Your task to perform on an android device: Open privacy settings Image 0: 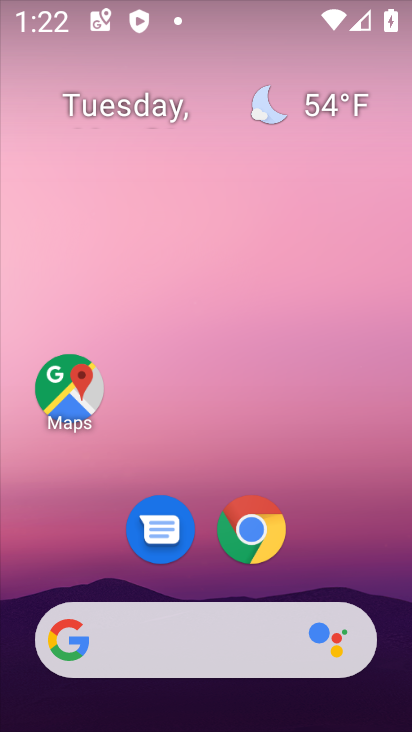
Step 0: drag from (356, 538) to (297, 97)
Your task to perform on an android device: Open privacy settings Image 1: 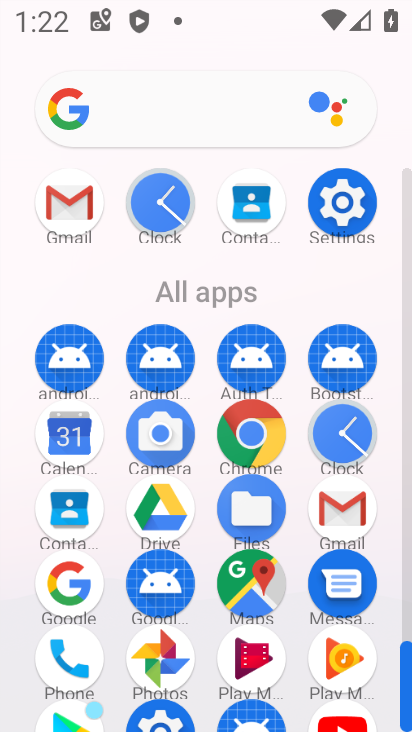
Step 1: click (345, 202)
Your task to perform on an android device: Open privacy settings Image 2: 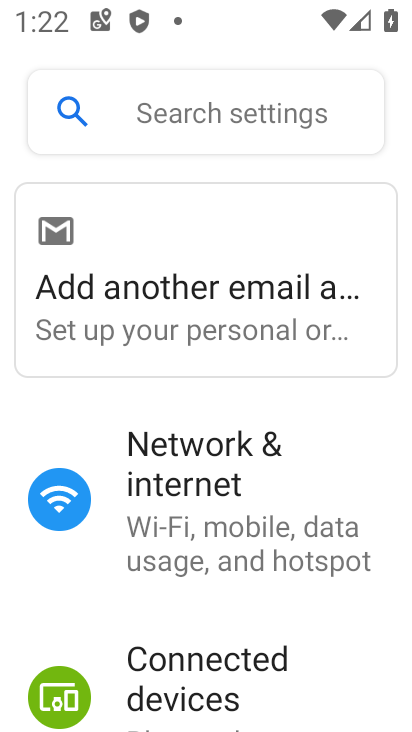
Step 2: drag from (199, 569) to (283, 421)
Your task to perform on an android device: Open privacy settings Image 3: 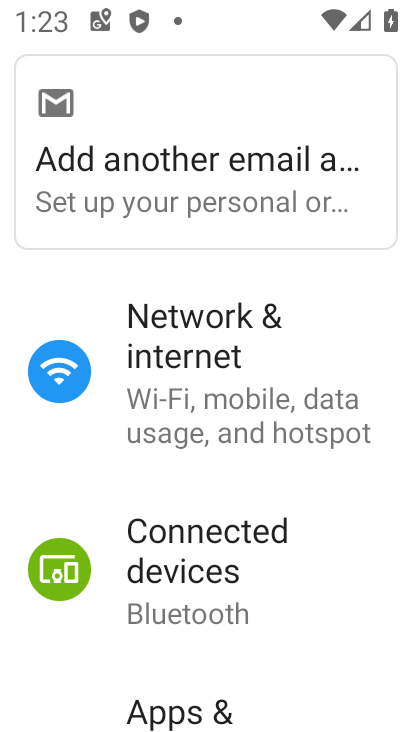
Step 3: drag from (209, 633) to (316, 431)
Your task to perform on an android device: Open privacy settings Image 4: 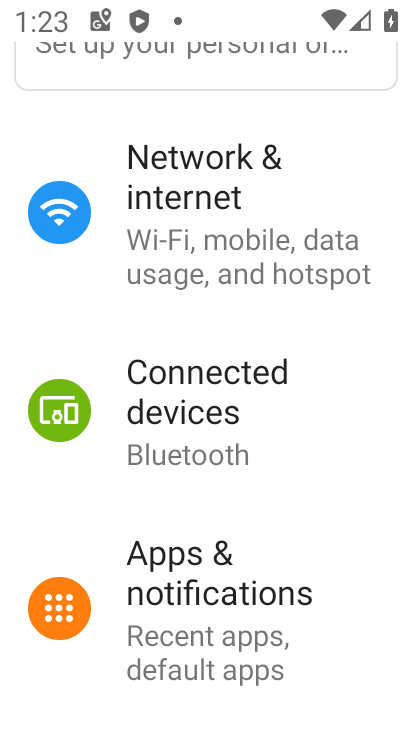
Step 4: drag from (265, 685) to (308, 449)
Your task to perform on an android device: Open privacy settings Image 5: 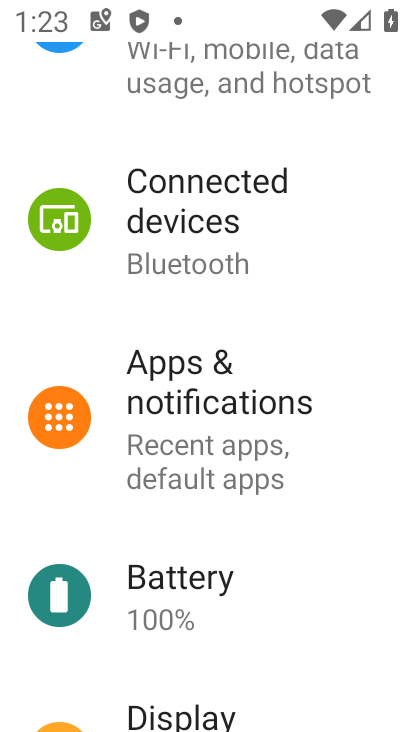
Step 5: drag from (249, 633) to (289, 427)
Your task to perform on an android device: Open privacy settings Image 6: 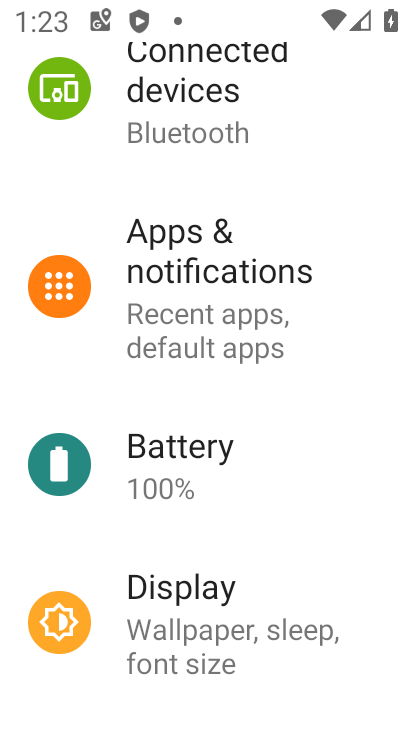
Step 6: drag from (247, 574) to (290, 418)
Your task to perform on an android device: Open privacy settings Image 7: 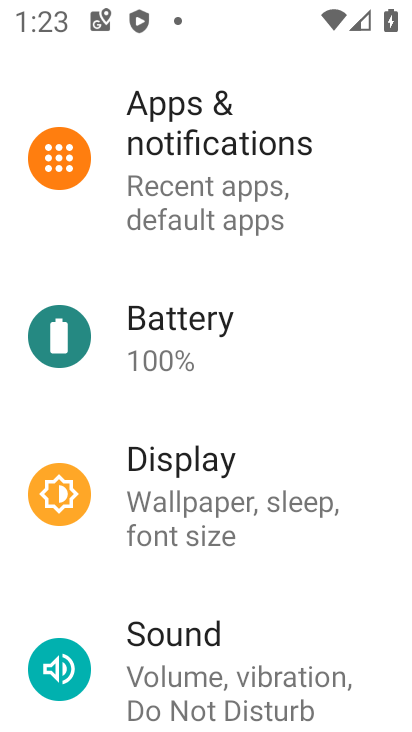
Step 7: drag from (269, 581) to (343, 403)
Your task to perform on an android device: Open privacy settings Image 8: 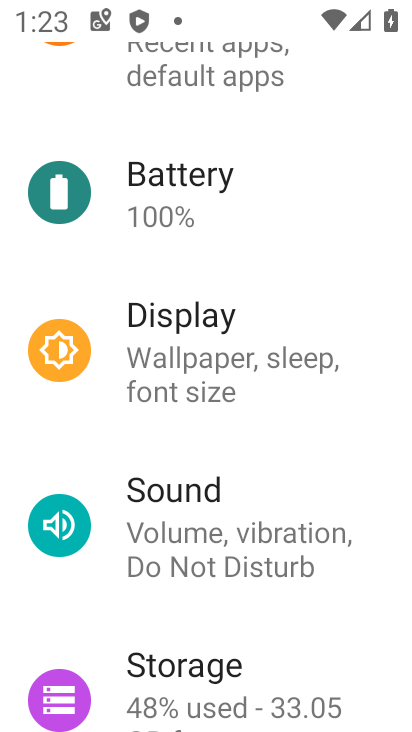
Step 8: drag from (257, 613) to (336, 438)
Your task to perform on an android device: Open privacy settings Image 9: 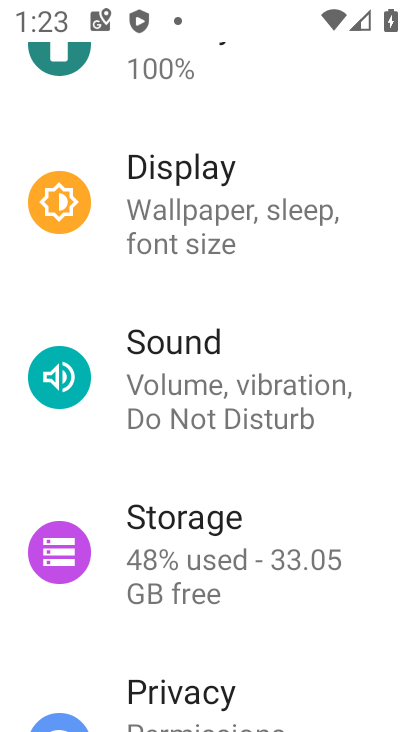
Step 9: drag from (265, 649) to (336, 437)
Your task to perform on an android device: Open privacy settings Image 10: 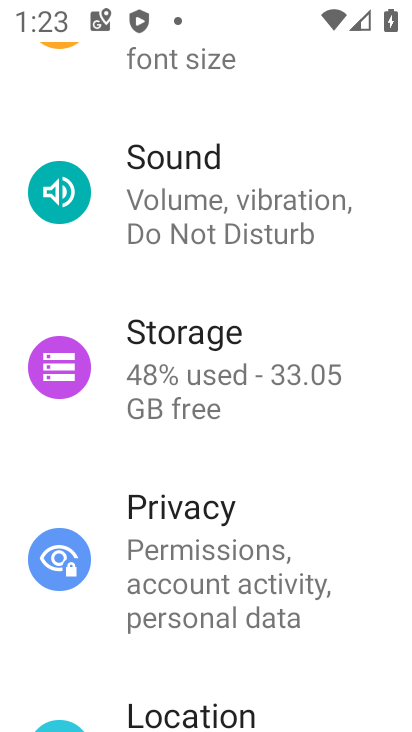
Step 10: click (206, 537)
Your task to perform on an android device: Open privacy settings Image 11: 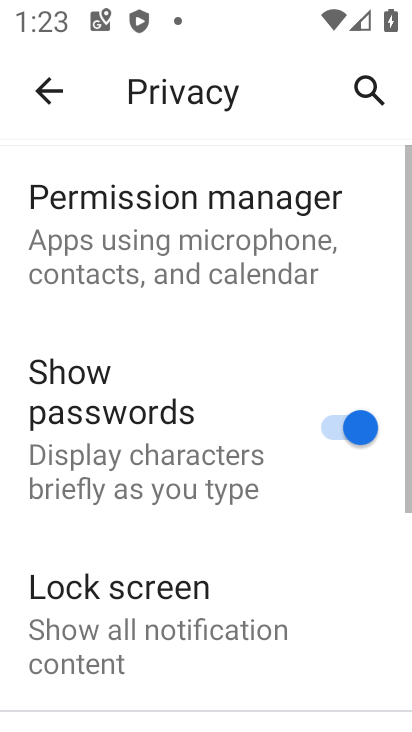
Step 11: task complete